Your task to perform on an android device: Do I have any events tomorrow? Image 0: 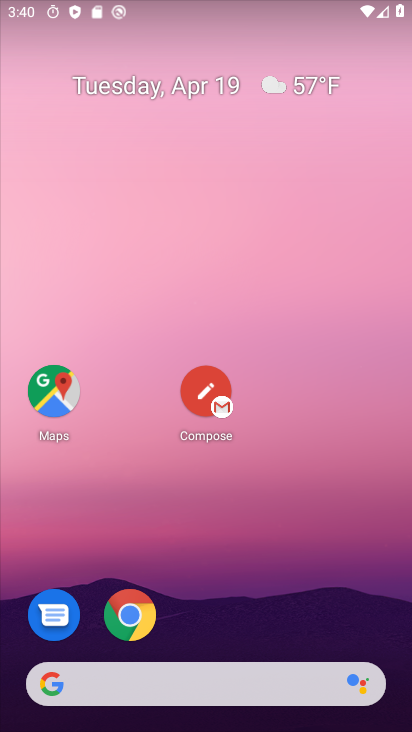
Step 0: drag from (280, 632) to (256, 7)
Your task to perform on an android device: Do I have any events tomorrow? Image 1: 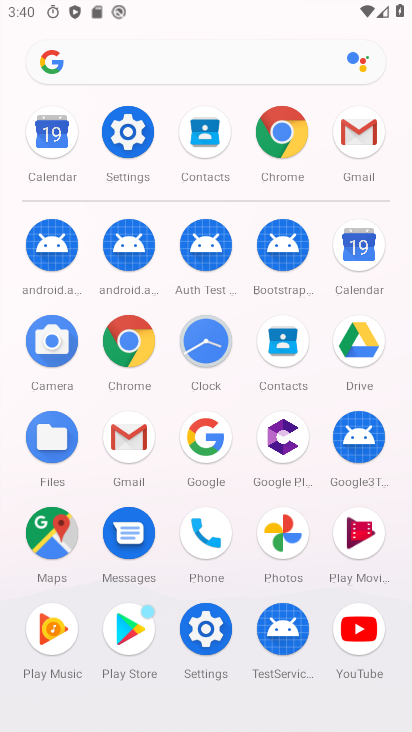
Step 1: drag from (241, 278) to (247, 589)
Your task to perform on an android device: Do I have any events tomorrow? Image 2: 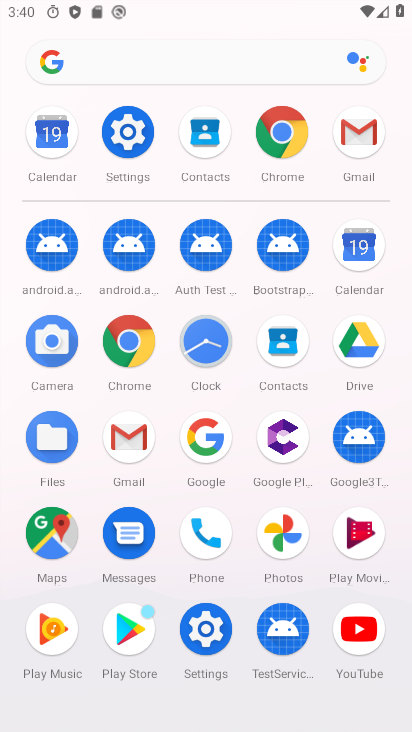
Step 2: drag from (244, 644) to (261, 240)
Your task to perform on an android device: Do I have any events tomorrow? Image 3: 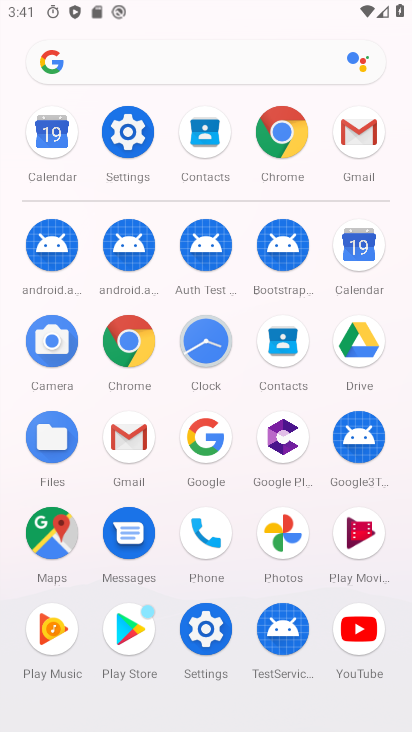
Step 3: click (358, 263)
Your task to perform on an android device: Do I have any events tomorrow? Image 4: 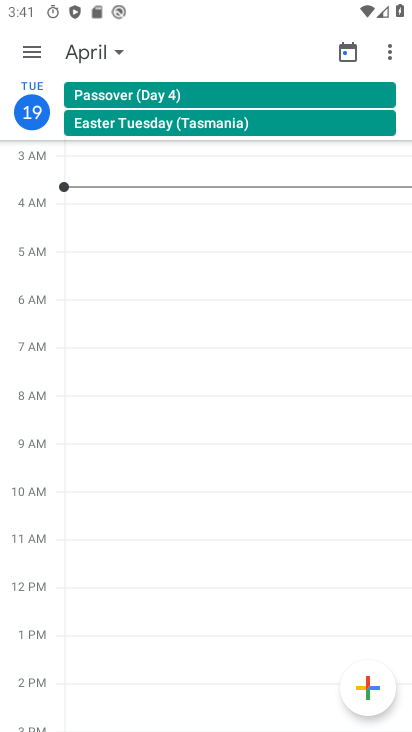
Step 4: task complete